Your task to perform on an android device: Go to notification settings Image 0: 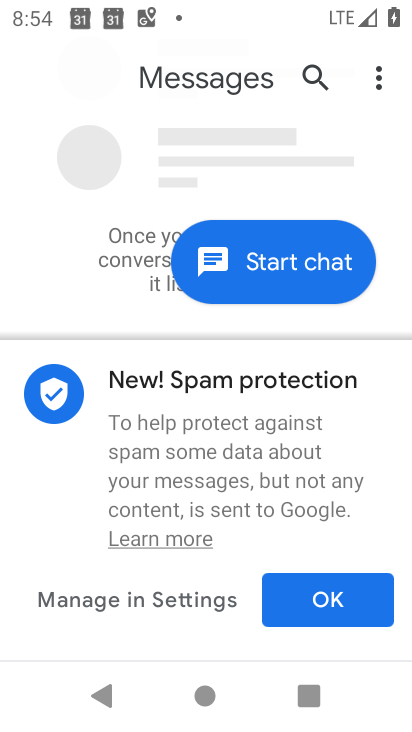
Step 0: press home button
Your task to perform on an android device: Go to notification settings Image 1: 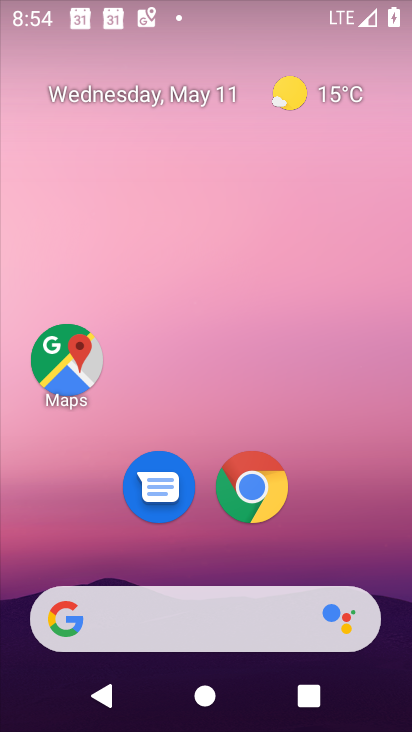
Step 1: drag from (297, 652) to (270, 184)
Your task to perform on an android device: Go to notification settings Image 2: 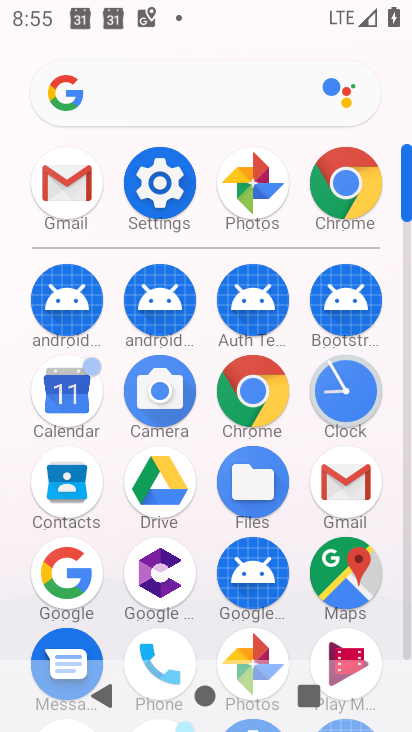
Step 2: click (149, 201)
Your task to perform on an android device: Go to notification settings Image 3: 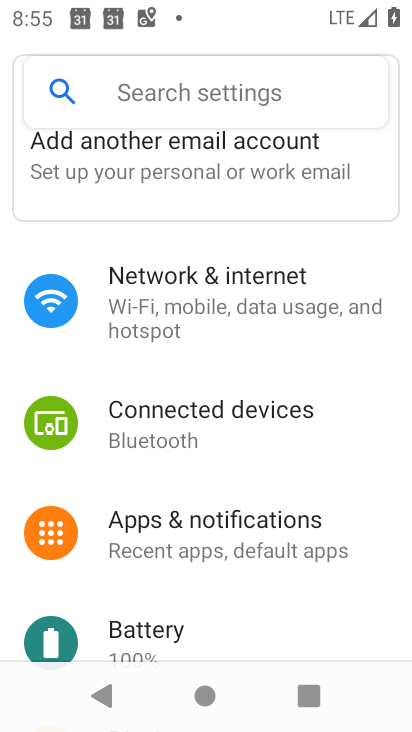
Step 3: click (207, 107)
Your task to perform on an android device: Go to notification settings Image 4: 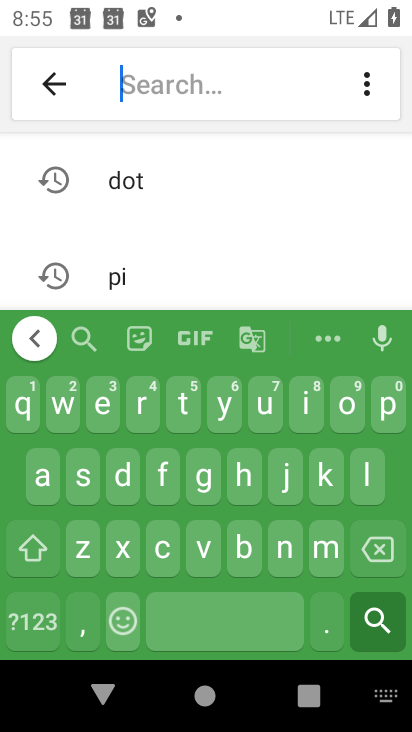
Step 4: click (277, 553)
Your task to perform on an android device: Go to notification settings Image 5: 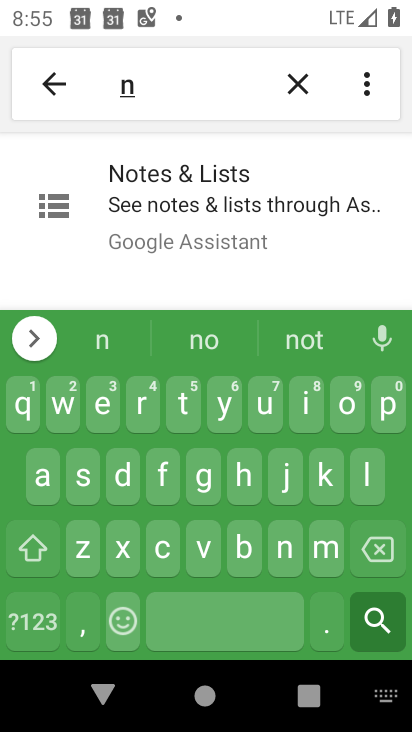
Step 5: click (344, 413)
Your task to perform on an android device: Go to notification settings Image 6: 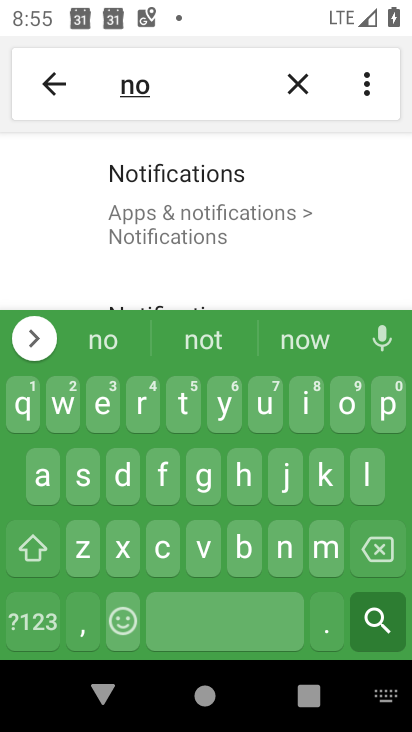
Step 6: click (261, 201)
Your task to perform on an android device: Go to notification settings Image 7: 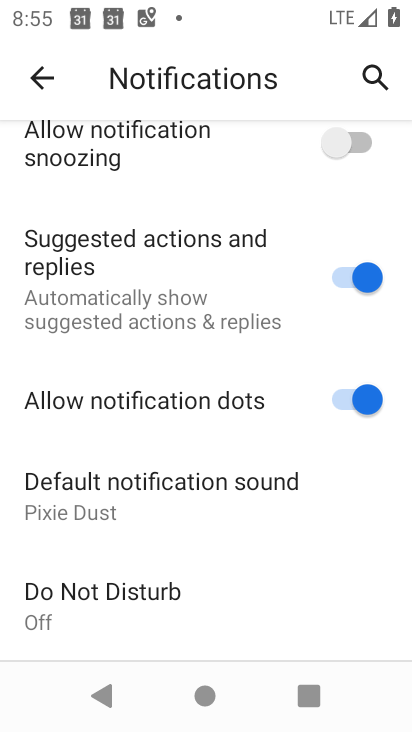
Step 7: drag from (99, 261) to (140, 507)
Your task to perform on an android device: Go to notification settings Image 8: 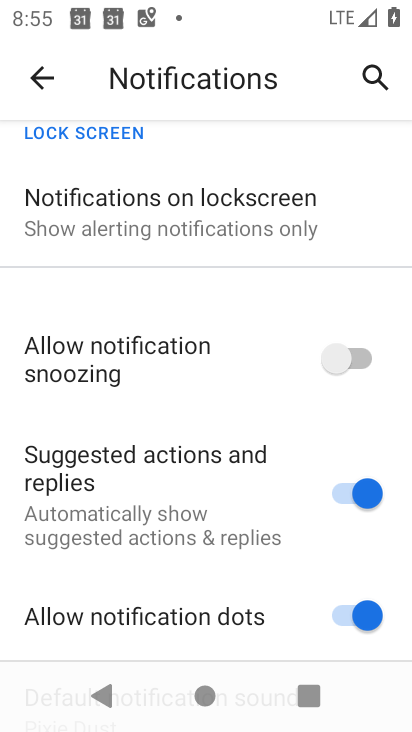
Step 8: click (160, 244)
Your task to perform on an android device: Go to notification settings Image 9: 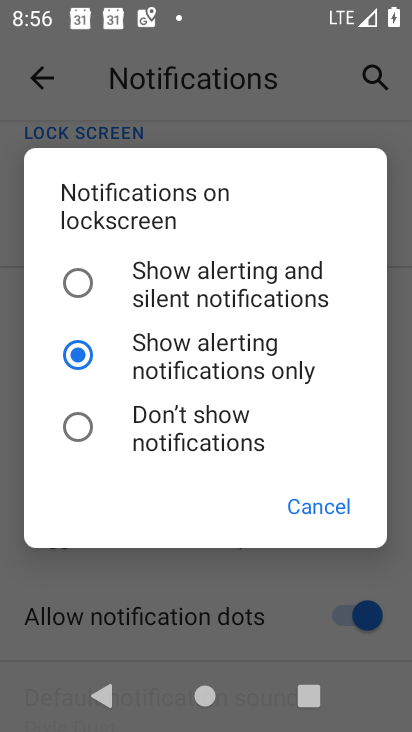
Step 9: task complete